Your task to perform on an android device: Search for Italian restaurants on Maps Image 0: 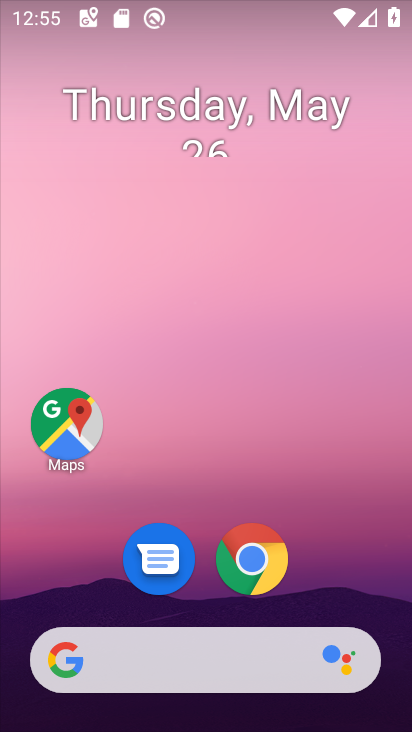
Step 0: click (61, 419)
Your task to perform on an android device: Search for Italian restaurants on Maps Image 1: 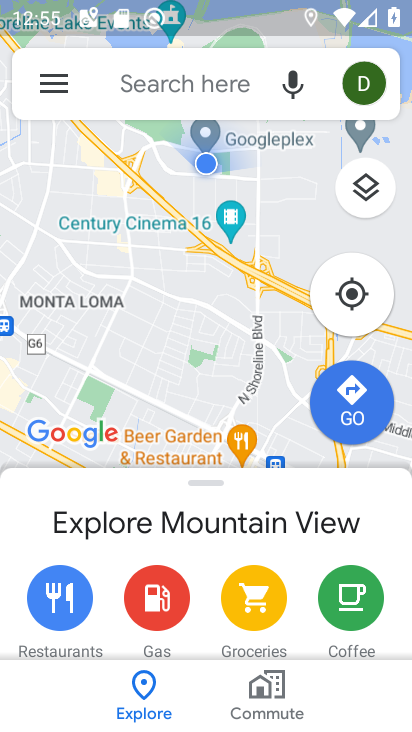
Step 1: click (240, 91)
Your task to perform on an android device: Search for Italian restaurants on Maps Image 2: 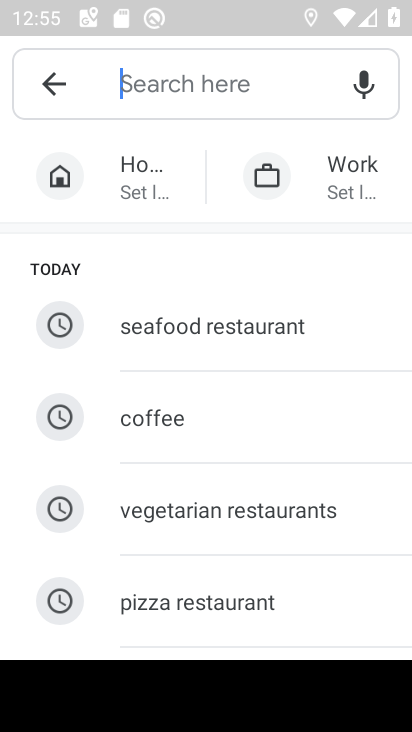
Step 2: type "Italian restaurants"
Your task to perform on an android device: Search for Italian restaurants on Maps Image 3: 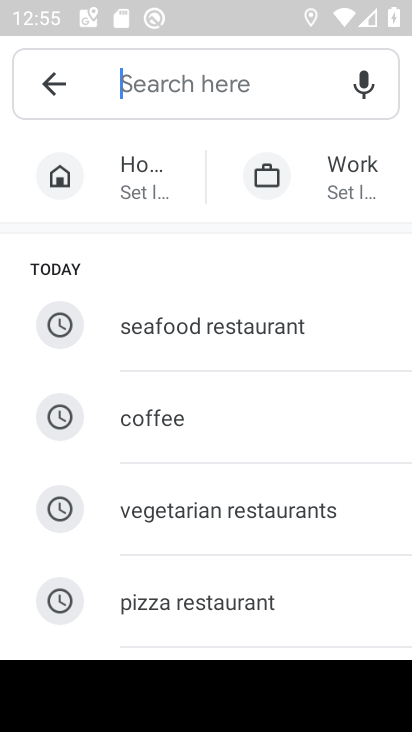
Step 3: click (195, 70)
Your task to perform on an android device: Search for Italian restaurants on Maps Image 4: 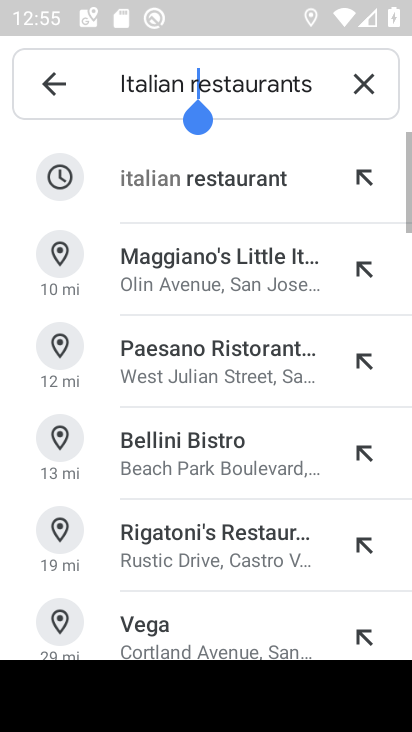
Step 4: click (179, 188)
Your task to perform on an android device: Search for Italian restaurants on Maps Image 5: 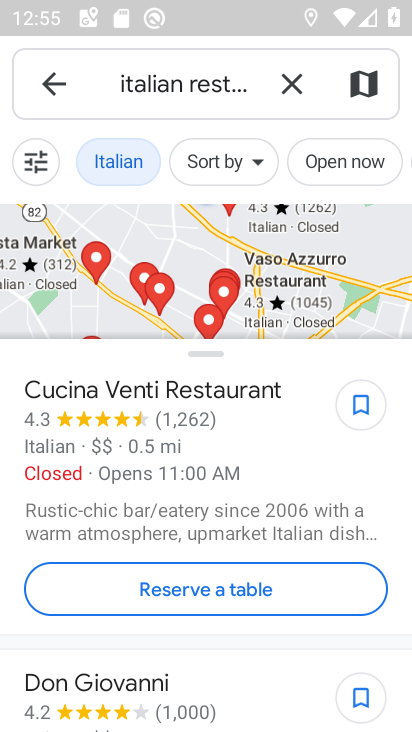
Step 5: task complete